Your task to perform on an android device: check battery use Image 0: 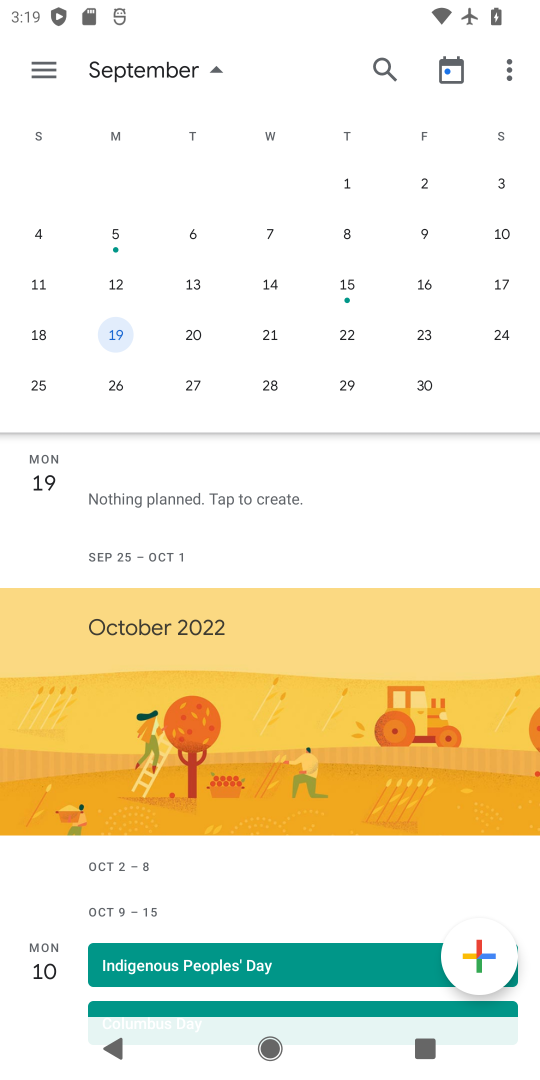
Step 0: press home button
Your task to perform on an android device: check battery use Image 1: 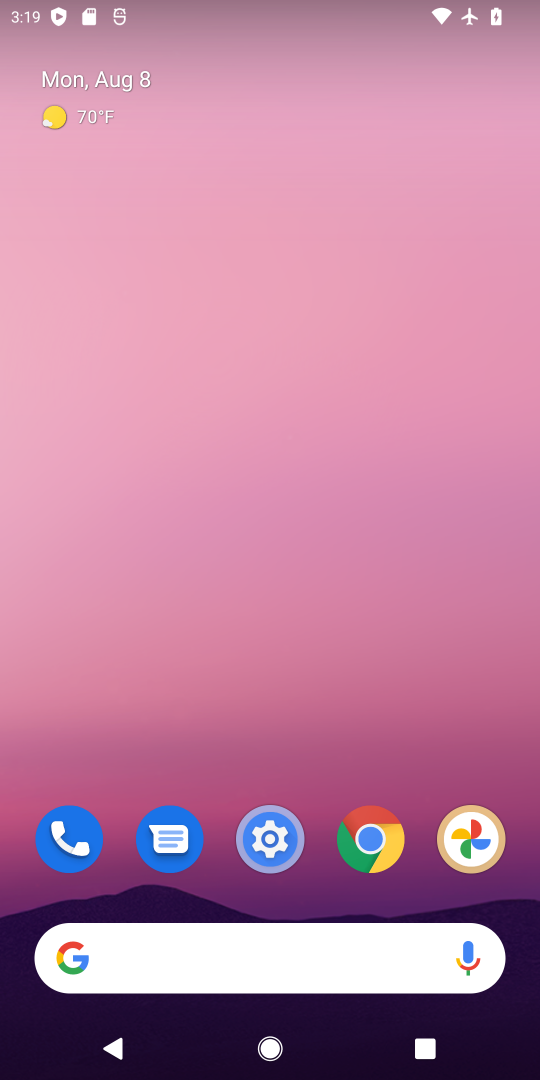
Step 1: drag from (475, 708) to (497, 268)
Your task to perform on an android device: check battery use Image 2: 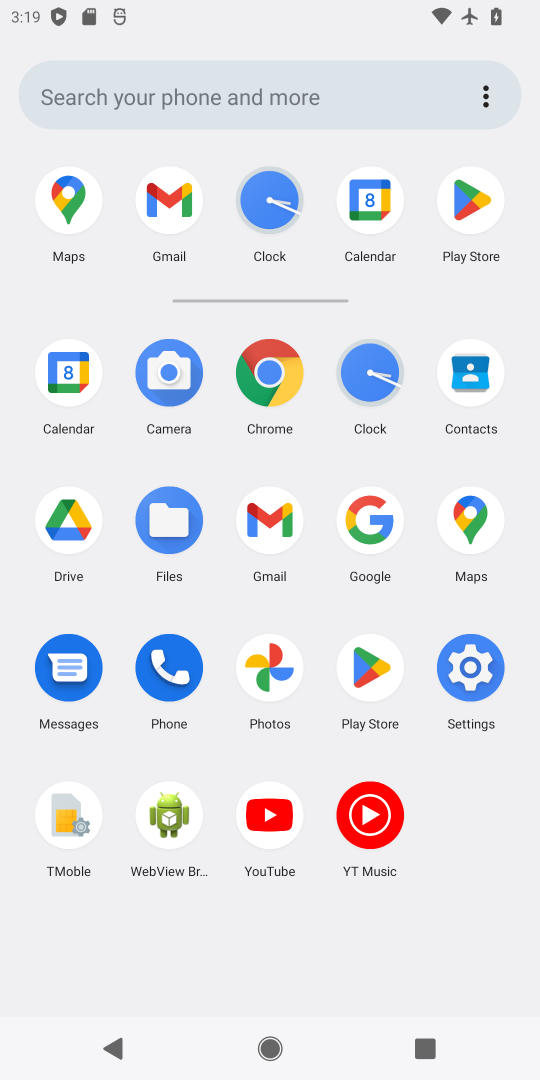
Step 2: click (481, 664)
Your task to perform on an android device: check battery use Image 3: 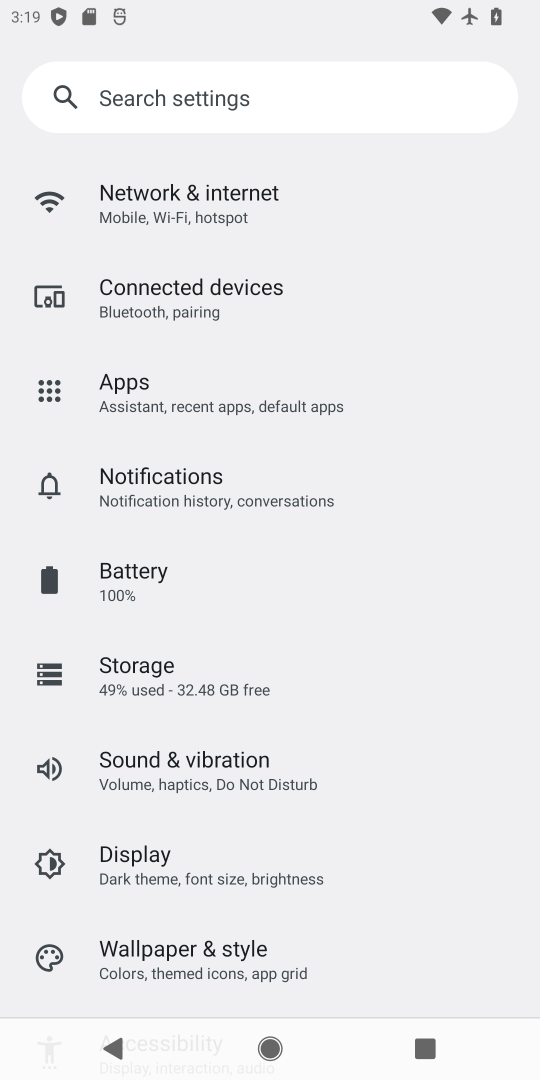
Step 3: drag from (408, 876) to (416, 673)
Your task to perform on an android device: check battery use Image 4: 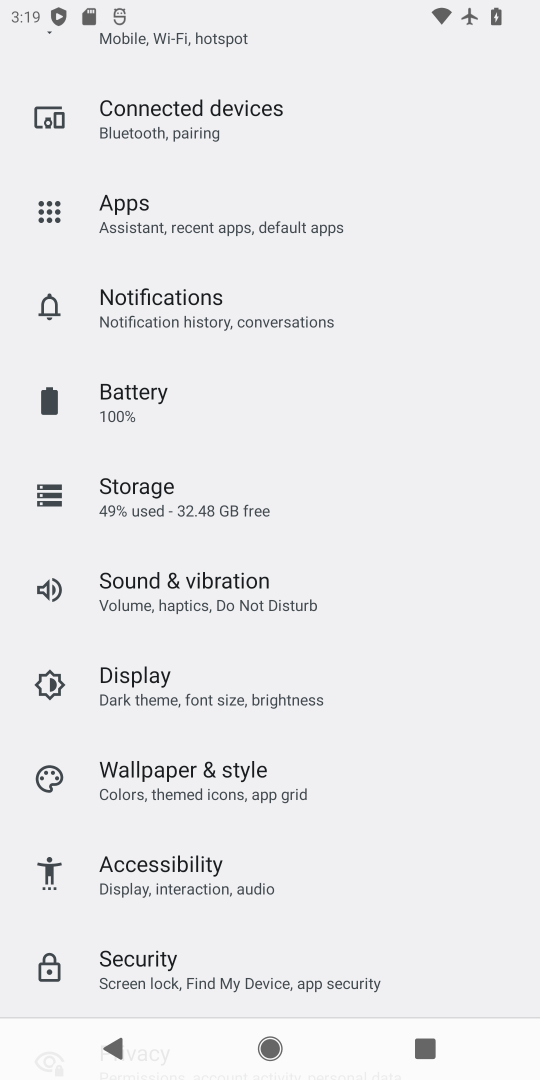
Step 4: drag from (441, 822) to (452, 671)
Your task to perform on an android device: check battery use Image 5: 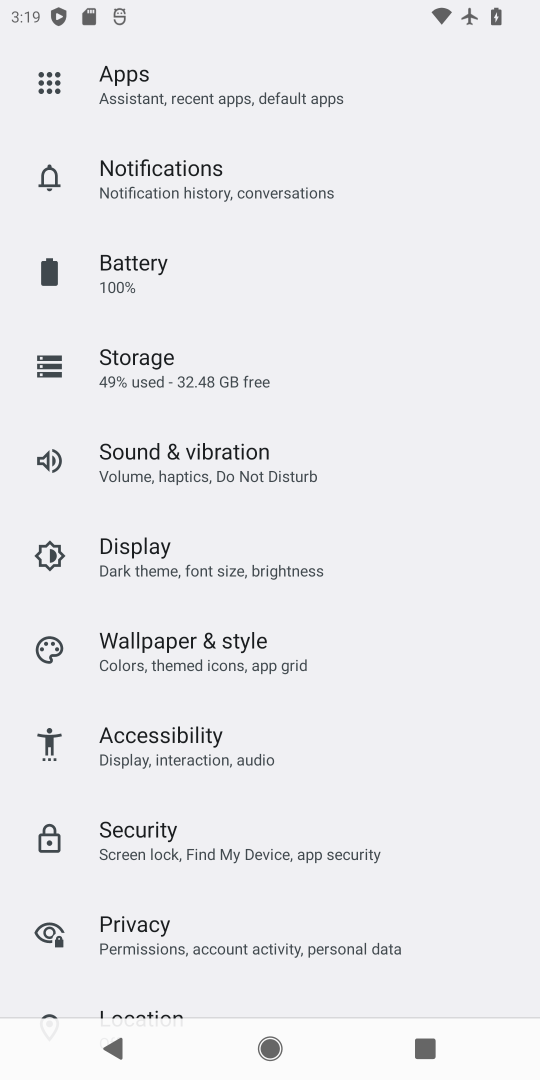
Step 5: drag from (439, 865) to (459, 687)
Your task to perform on an android device: check battery use Image 6: 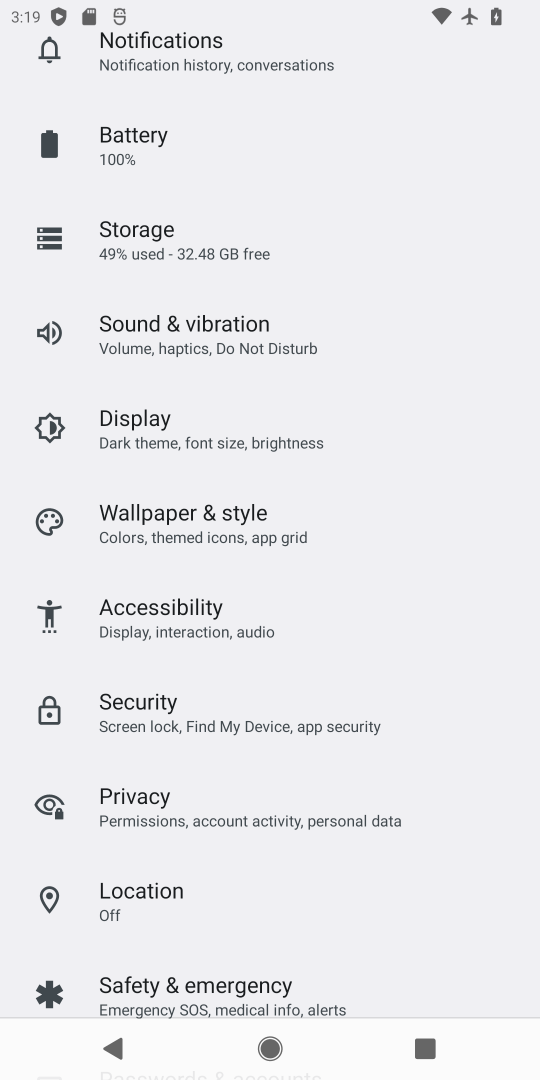
Step 6: drag from (443, 850) to (452, 683)
Your task to perform on an android device: check battery use Image 7: 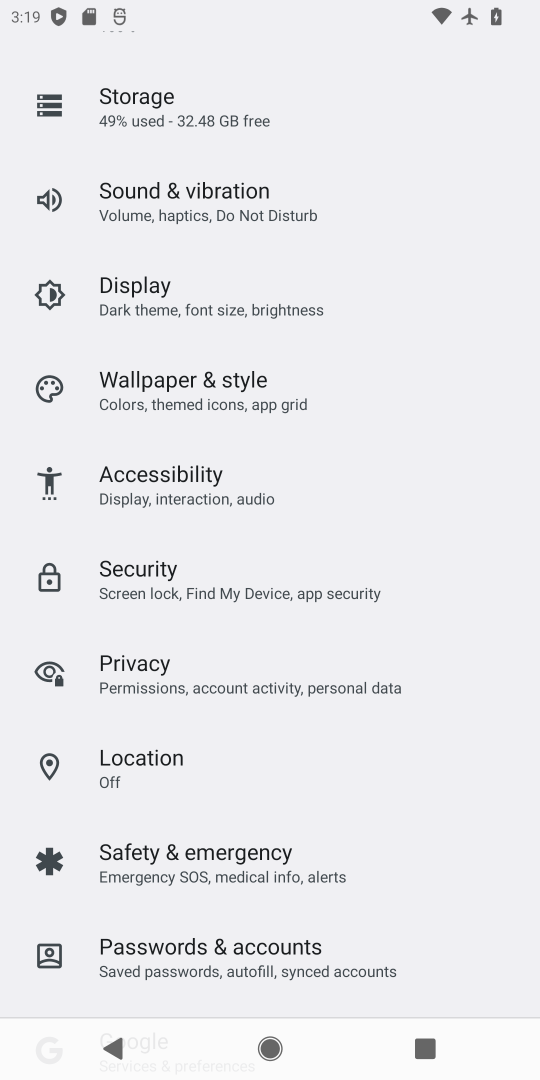
Step 7: drag from (431, 833) to (448, 660)
Your task to perform on an android device: check battery use Image 8: 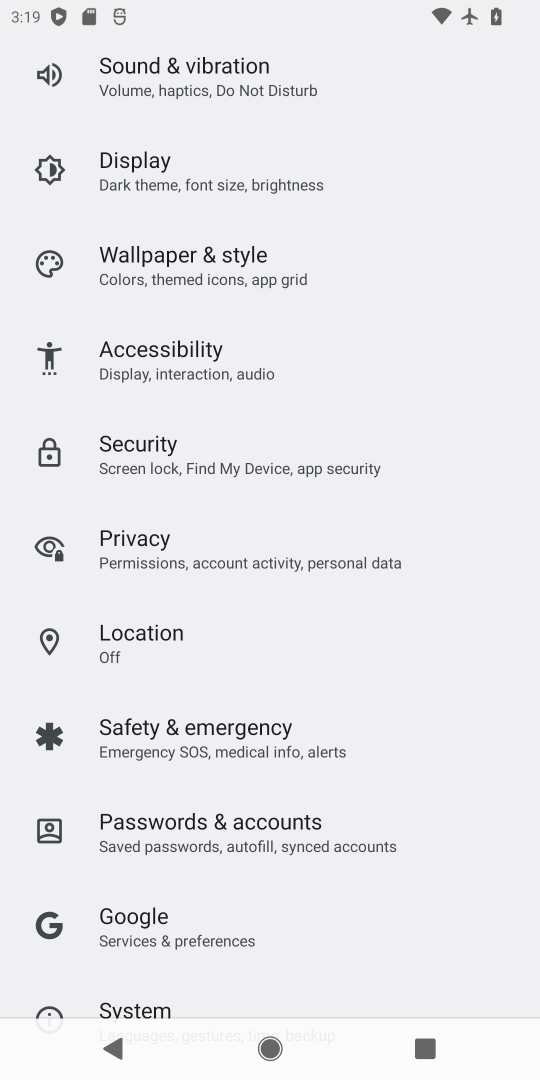
Step 8: drag from (471, 486) to (459, 701)
Your task to perform on an android device: check battery use Image 9: 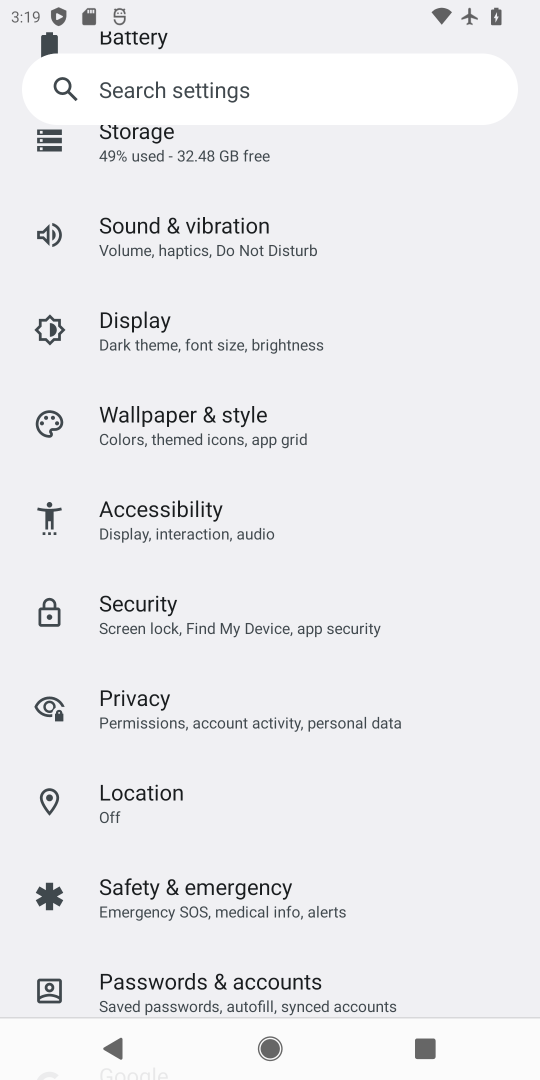
Step 9: drag from (479, 483) to (463, 686)
Your task to perform on an android device: check battery use Image 10: 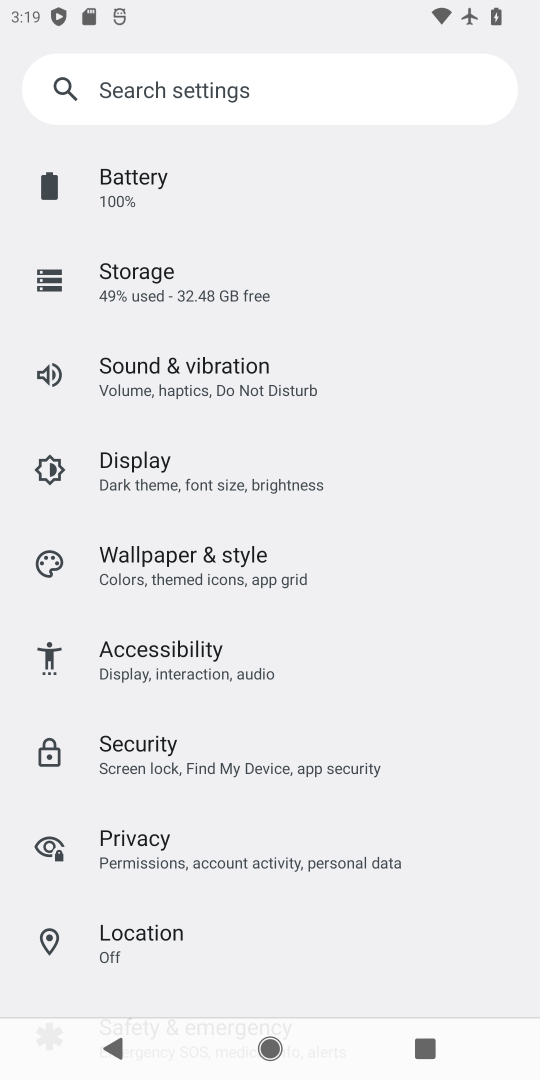
Step 10: drag from (451, 388) to (453, 631)
Your task to perform on an android device: check battery use Image 11: 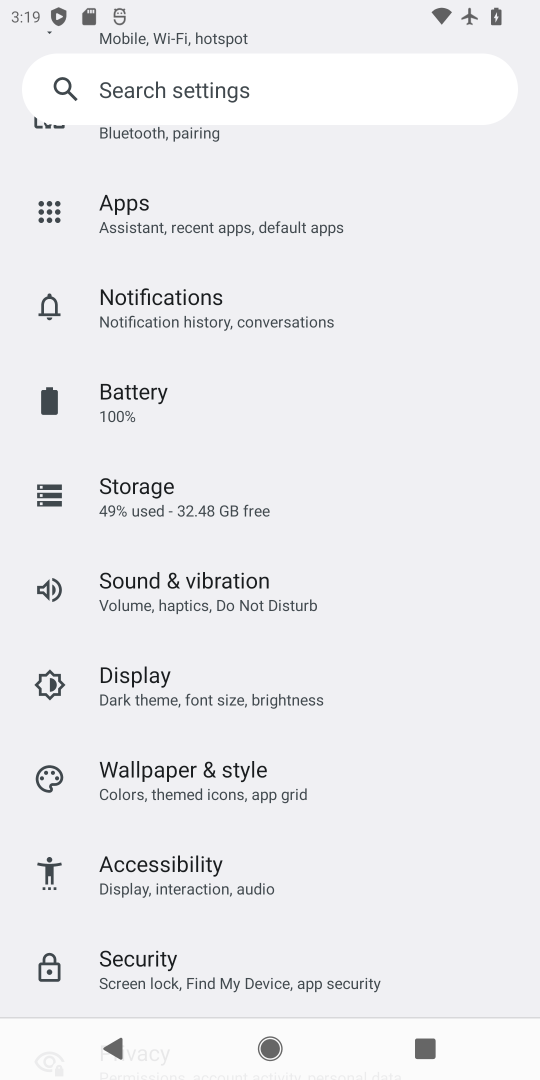
Step 11: drag from (453, 368) to (445, 599)
Your task to perform on an android device: check battery use Image 12: 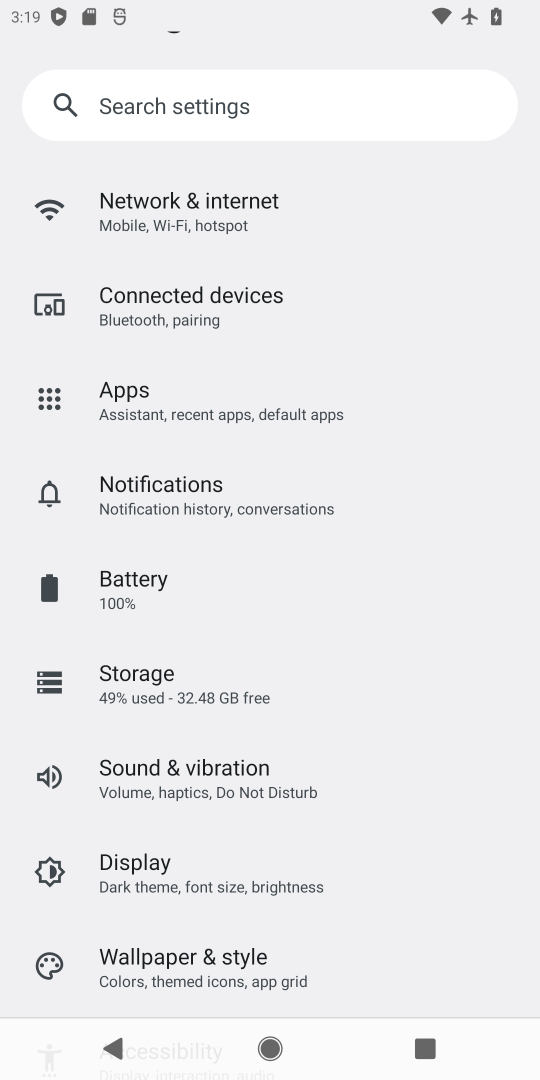
Step 12: click (353, 596)
Your task to perform on an android device: check battery use Image 13: 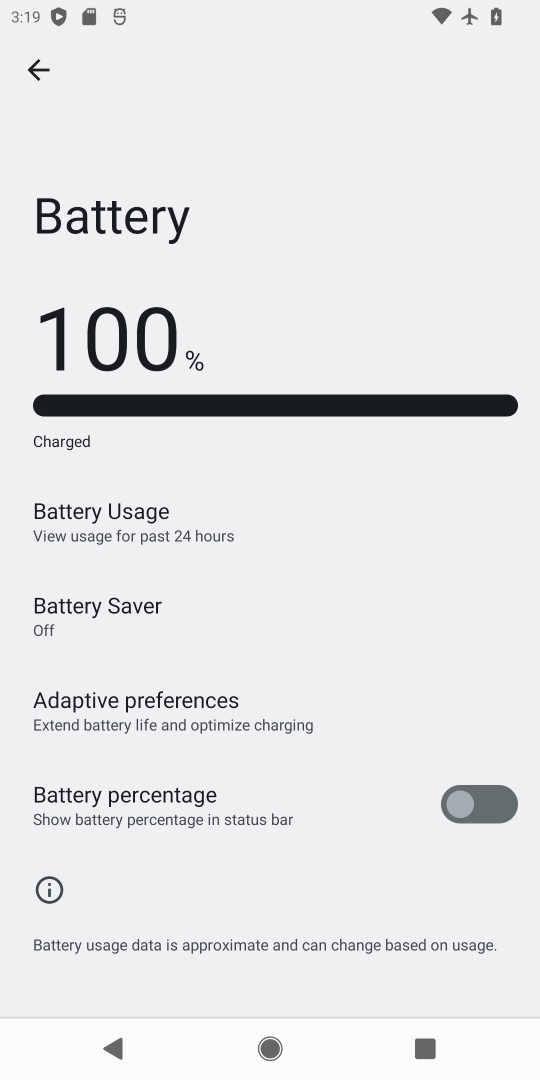
Step 13: click (206, 517)
Your task to perform on an android device: check battery use Image 14: 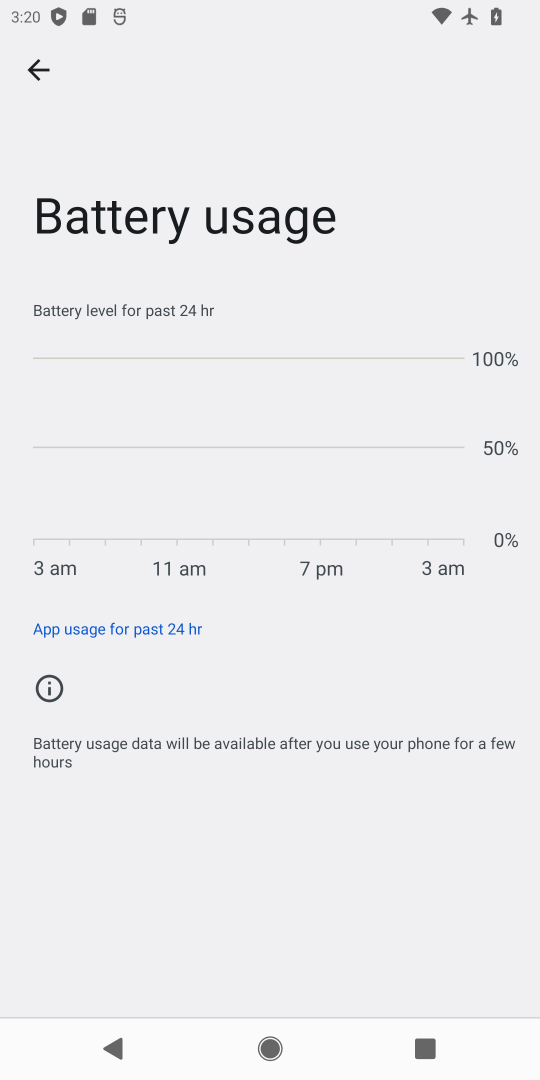
Step 14: task complete